Your task to perform on an android device: What's the weather? Image 0: 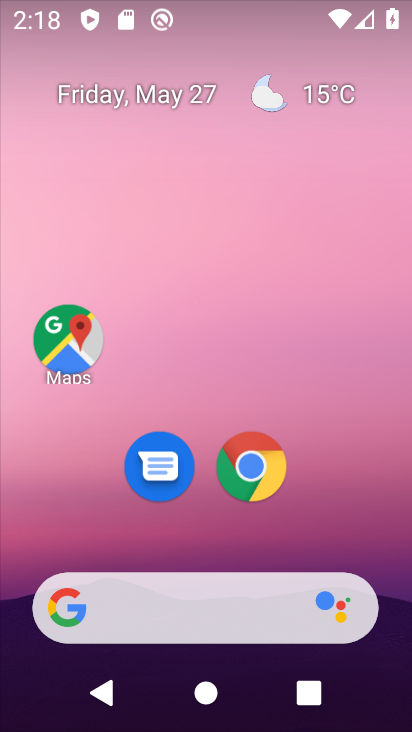
Step 0: drag from (338, 502) to (324, 109)
Your task to perform on an android device: What's the weather? Image 1: 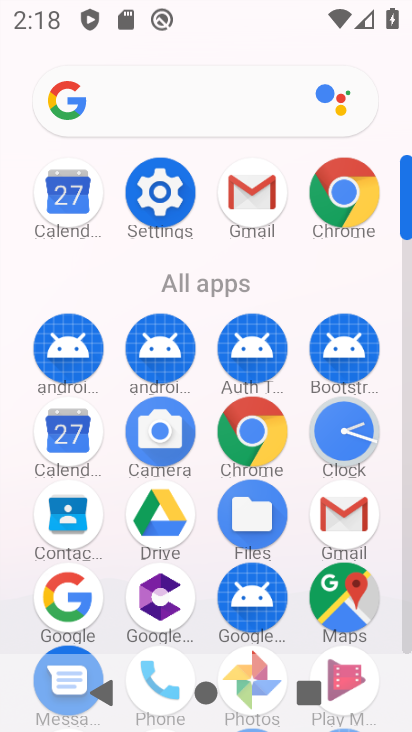
Step 1: click (266, 438)
Your task to perform on an android device: What's the weather? Image 2: 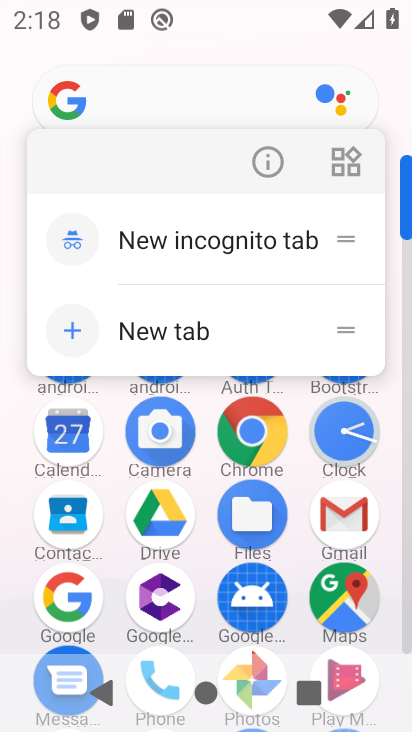
Step 2: type "what is the weather"
Your task to perform on an android device: What's the weather? Image 3: 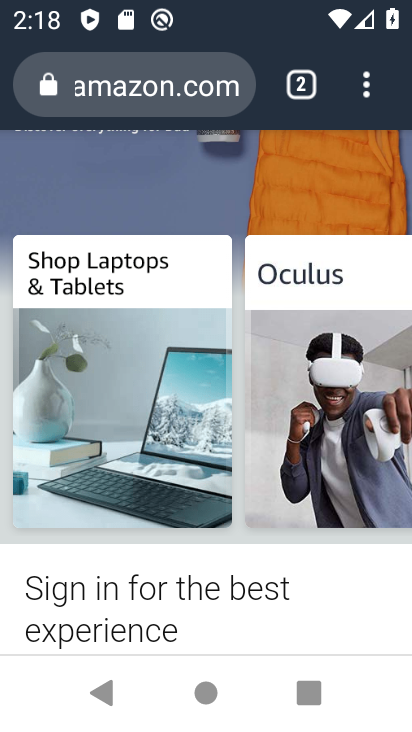
Step 3: click (168, 97)
Your task to perform on an android device: What's the weather? Image 4: 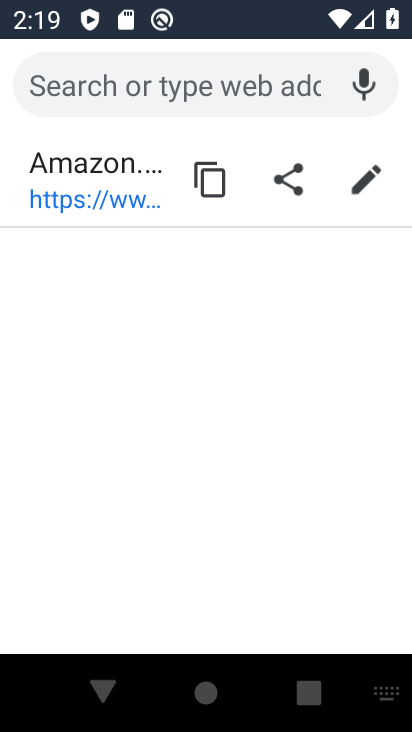
Step 4: type "what's the weather"
Your task to perform on an android device: What's the weather? Image 5: 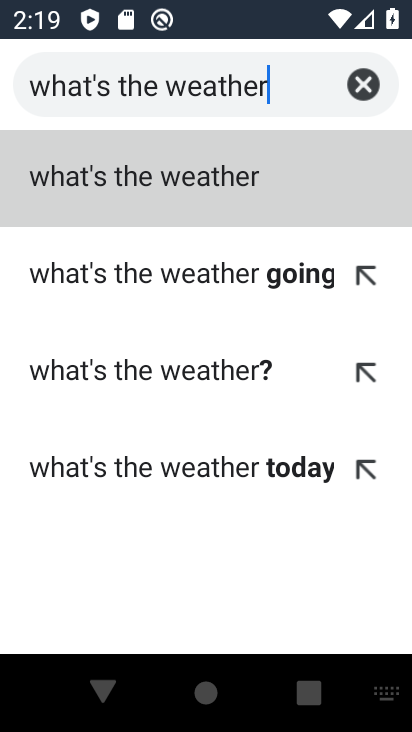
Step 5: click (151, 197)
Your task to perform on an android device: What's the weather? Image 6: 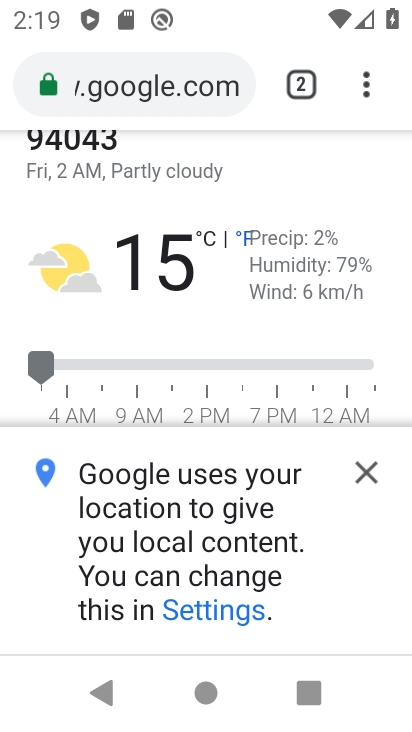
Step 6: task complete